Your task to perform on an android device: Go to wifi settings Image 0: 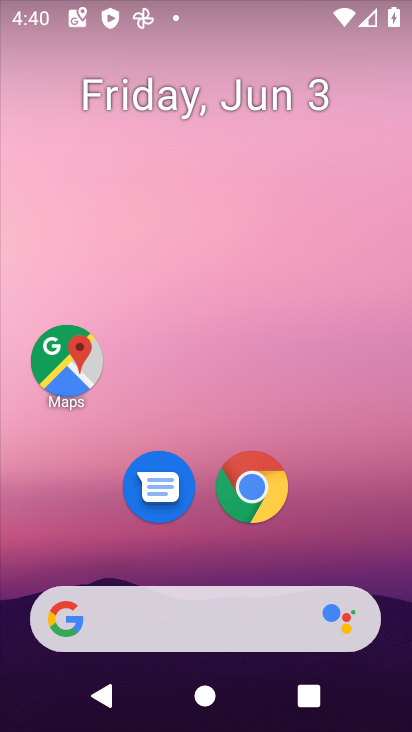
Step 0: drag from (191, 529) to (245, 171)
Your task to perform on an android device: Go to wifi settings Image 1: 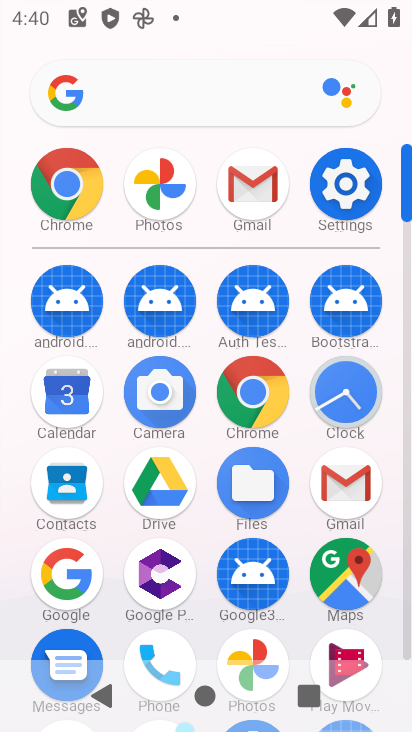
Step 1: click (337, 189)
Your task to perform on an android device: Go to wifi settings Image 2: 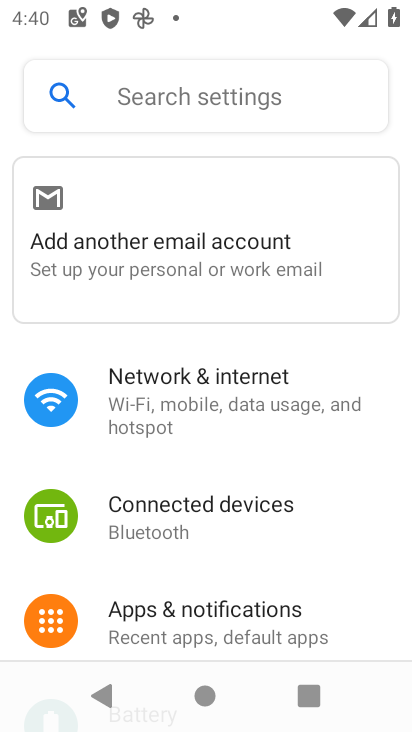
Step 2: click (162, 418)
Your task to perform on an android device: Go to wifi settings Image 3: 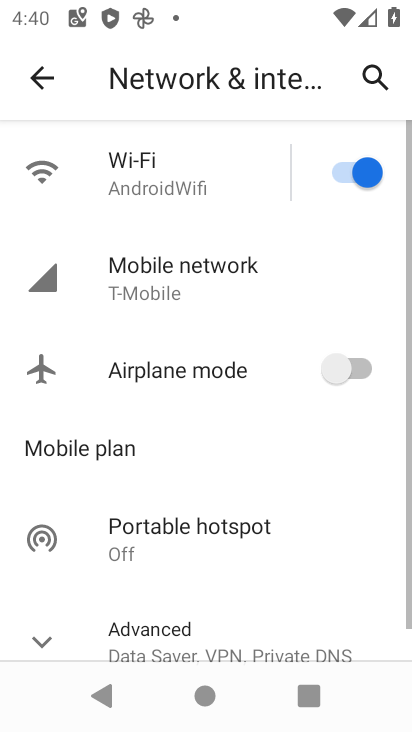
Step 3: click (196, 169)
Your task to perform on an android device: Go to wifi settings Image 4: 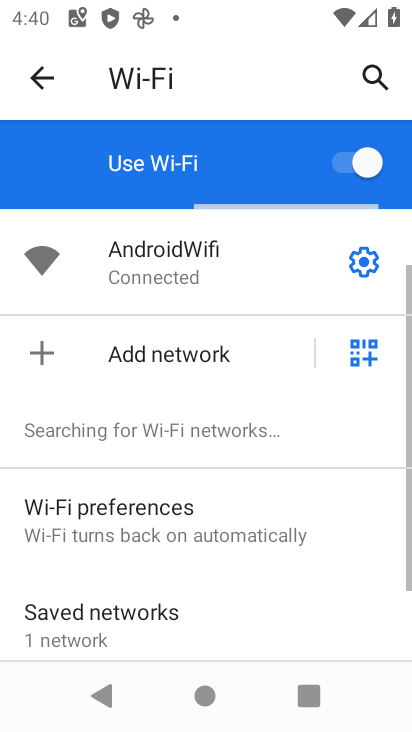
Step 4: click (351, 264)
Your task to perform on an android device: Go to wifi settings Image 5: 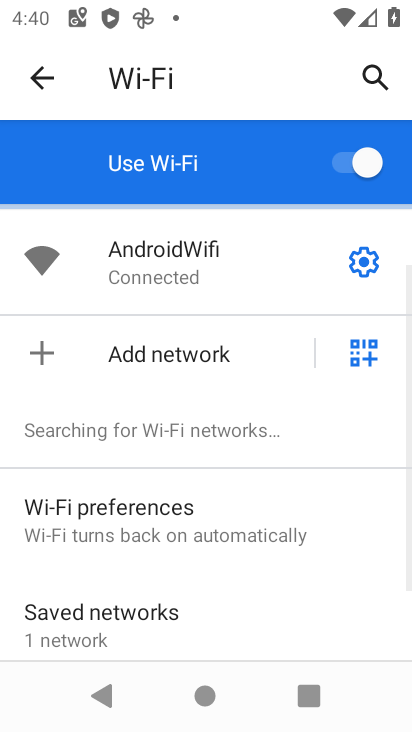
Step 5: task complete